Your task to perform on an android device: What's the weather? Image 0: 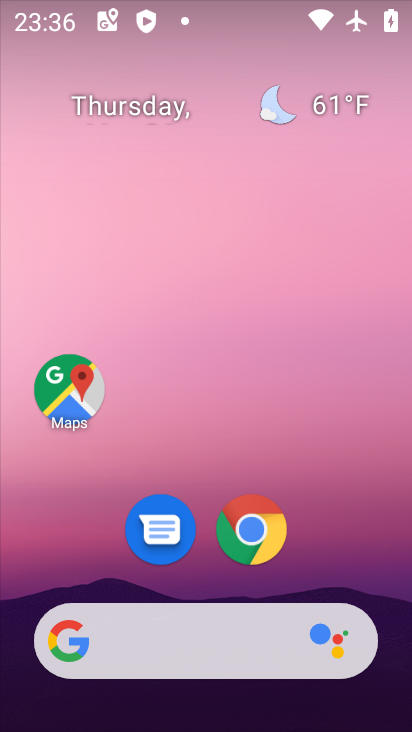
Step 0: click (250, 627)
Your task to perform on an android device: What's the weather? Image 1: 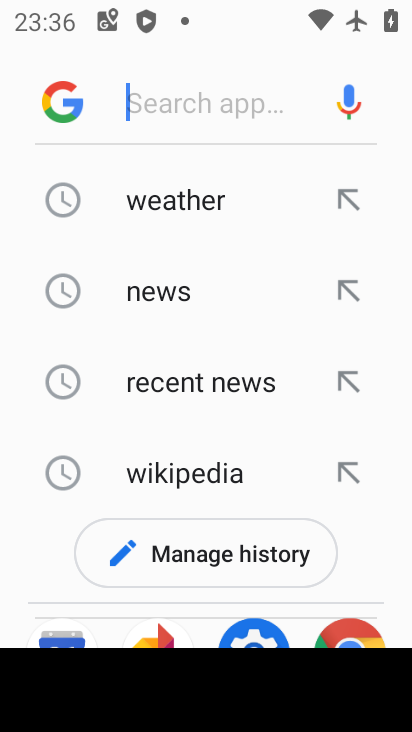
Step 1: click (184, 228)
Your task to perform on an android device: What's the weather? Image 2: 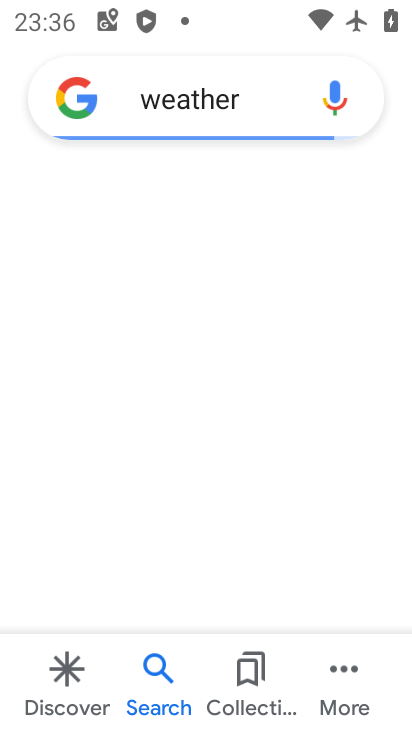
Step 2: task complete